Your task to perform on an android device: Go to network settings Image 0: 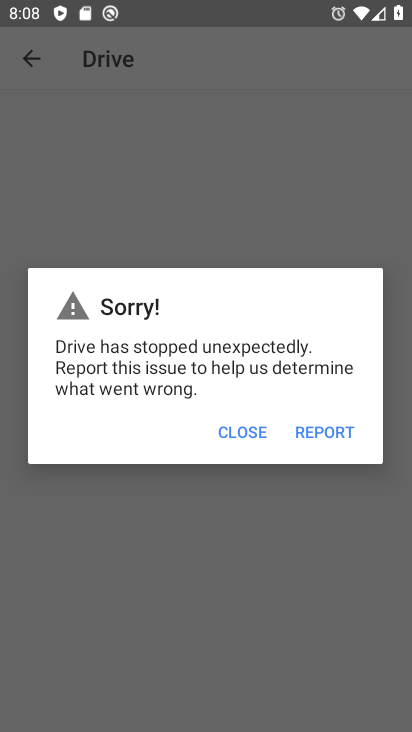
Step 0: press home button
Your task to perform on an android device: Go to network settings Image 1: 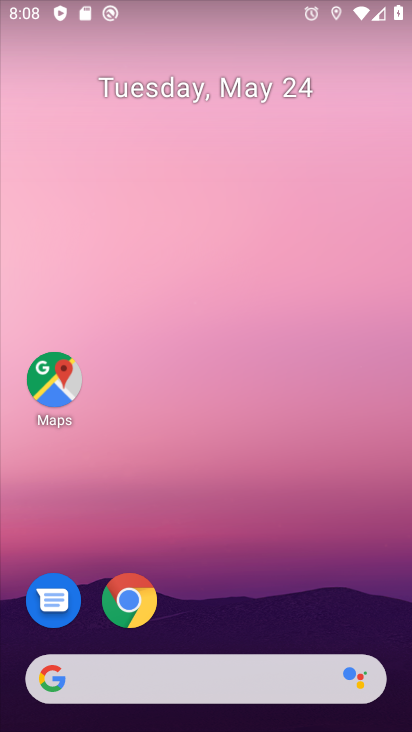
Step 1: drag from (196, 726) to (181, 59)
Your task to perform on an android device: Go to network settings Image 2: 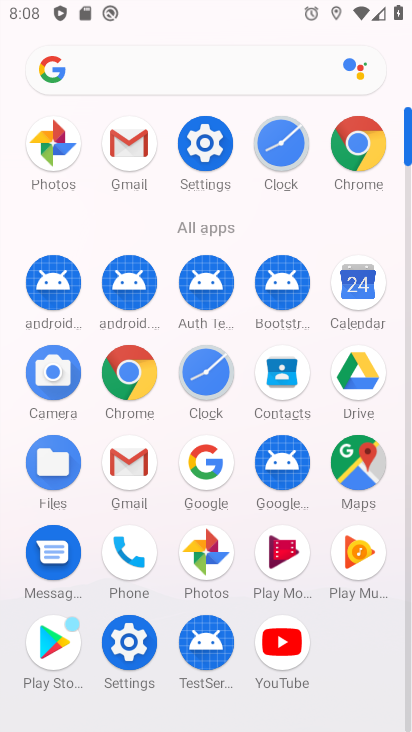
Step 2: click (198, 146)
Your task to perform on an android device: Go to network settings Image 3: 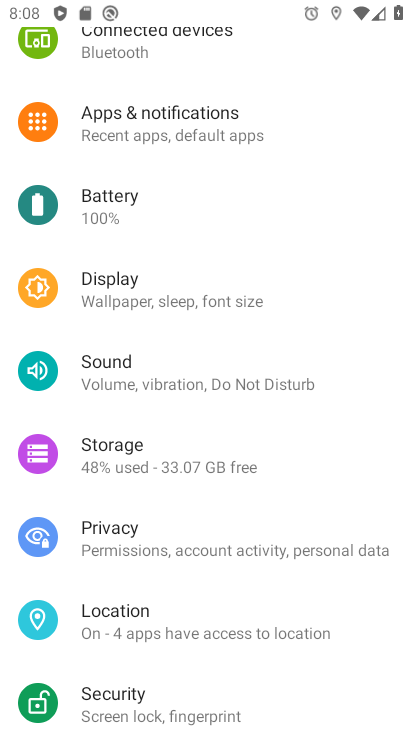
Step 3: drag from (197, 139) to (185, 483)
Your task to perform on an android device: Go to network settings Image 4: 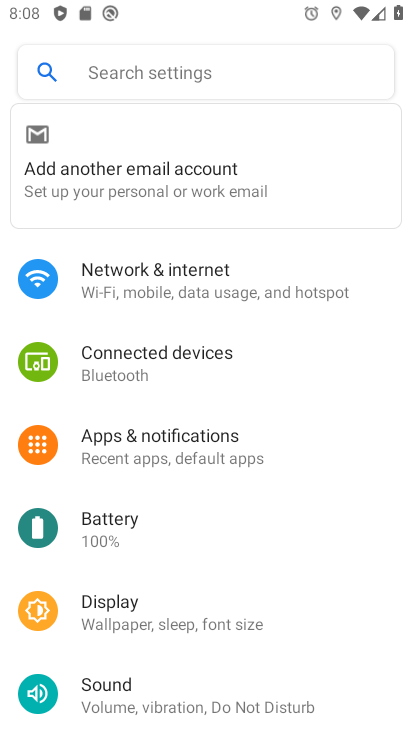
Step 4: click (148, 283)
Your task to perform on an android device: Go to network settings Image 5: 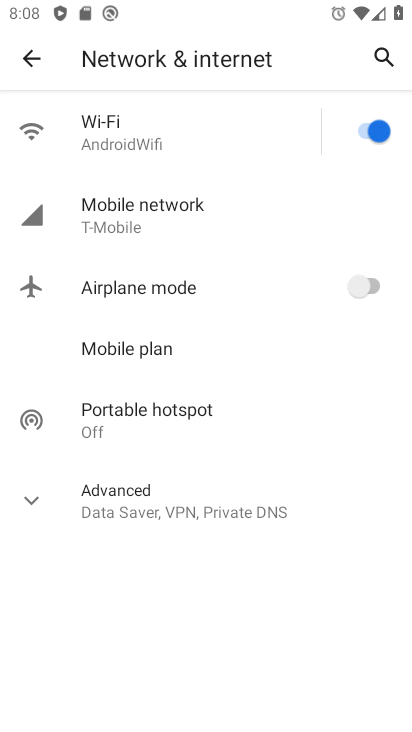
Step 5: click (115, 212)
Your task to perform on an android device: Go to network settings Image 6: 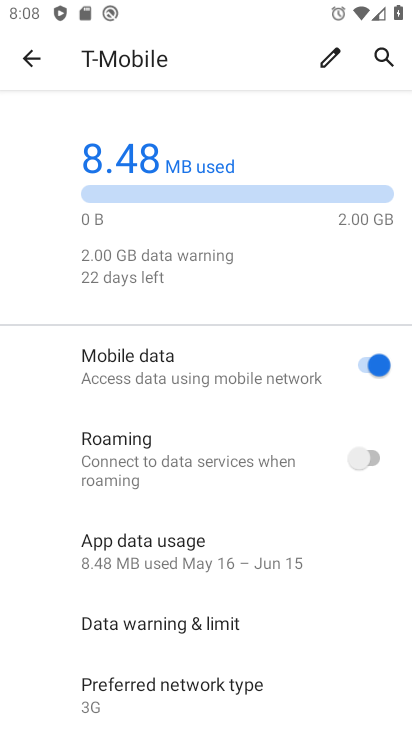
Step 6: task complete